Your task to perform on an android device: change your default location settings in chrome Image 0: 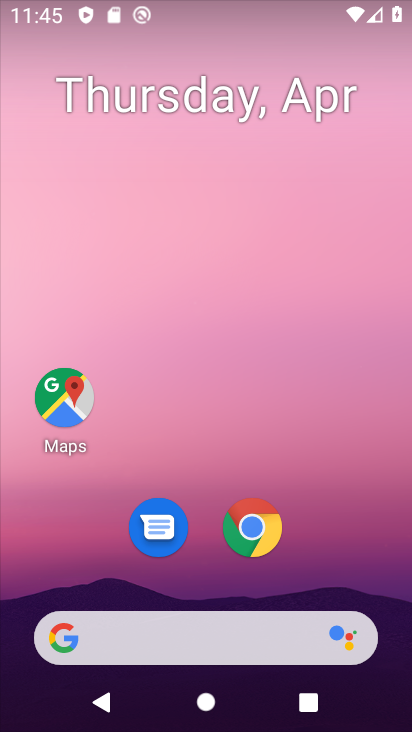
Step 0: click (260, 536)
Your task to perform on an android device: change your default location settings in chrome Image 1: 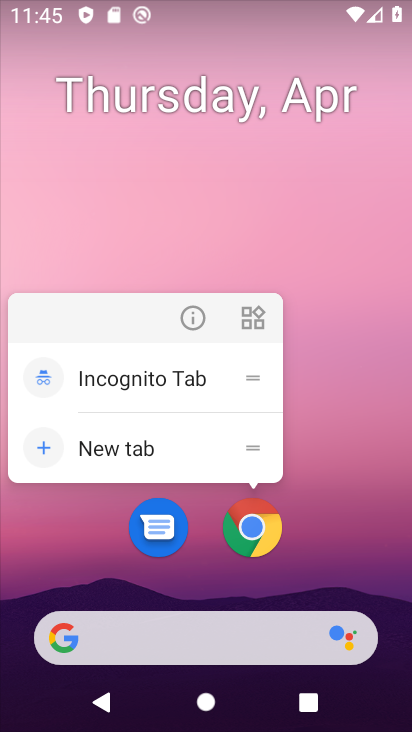
Step 1: click (260, 536)
Your task to perform on an android device: change your default location settings in chrome Image 2: 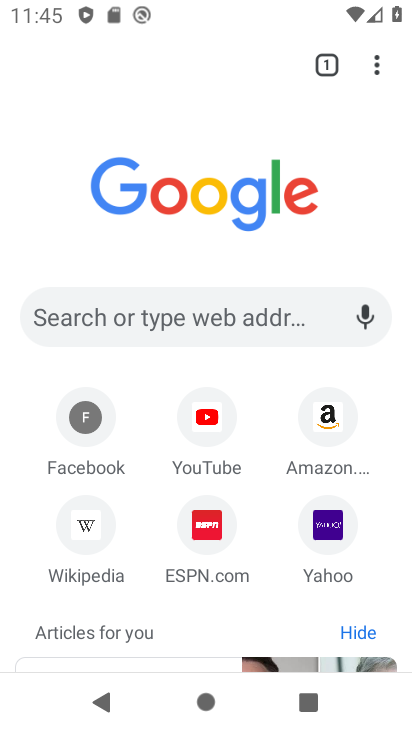
Step 2: click (385, 69)
Your task to perform on an android device: change your default location settings in chrome Image 3: 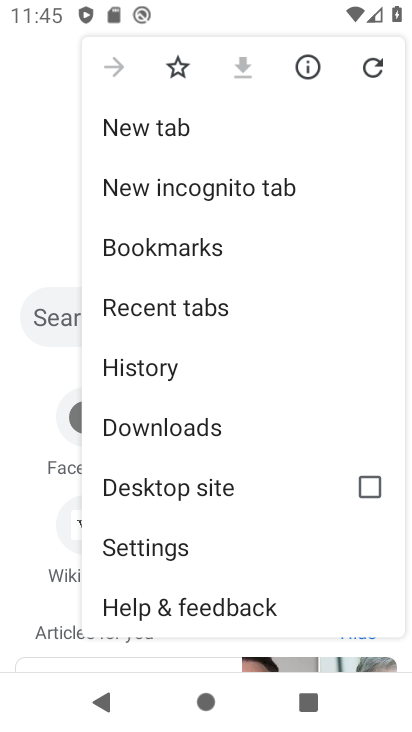
Step 3: click (194, 540)
Your task to perform on an android device: change your default location settings in chrome Image 4: 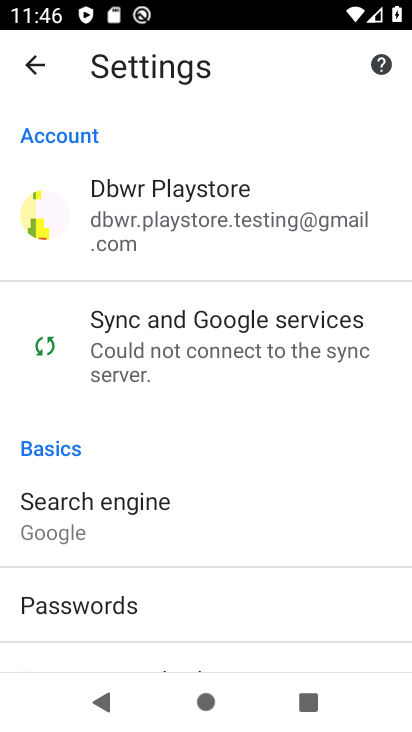
Step 4: drag from (240, 376) to (262, 190)
Your task to perform on an android device: change your default location settings in chrome Image 5: 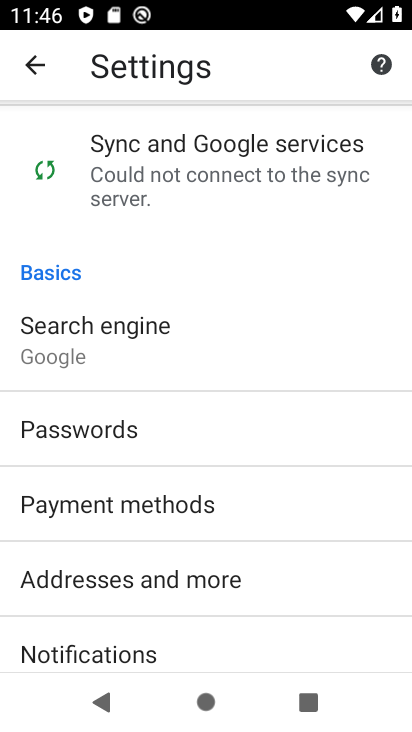
Step 5: drag from (233, 482) to (260, 308)
Your task to perform on an android device: change your default location settings in chrome Image 6: 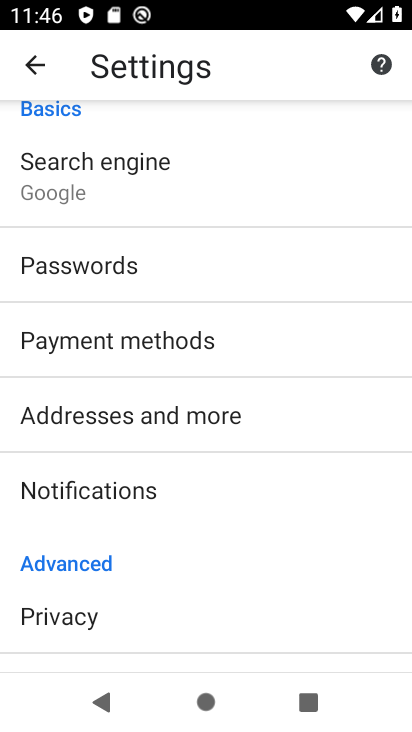
Step 6: drag from (199, 616) to (237, 289)
Your task to perform on an android device: change your default location settings in chrome Image 7: 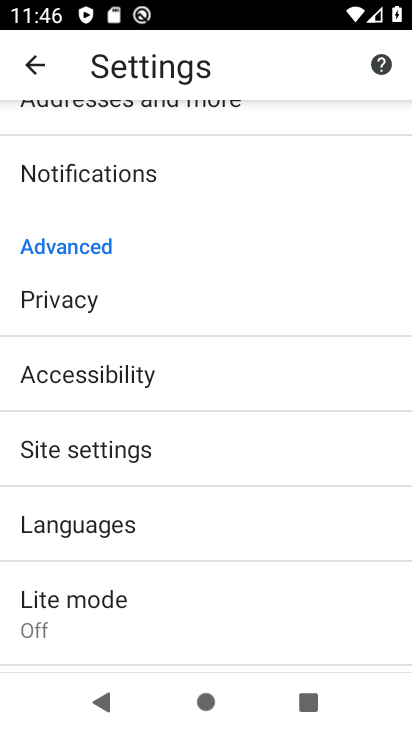
Step 7: drag from (226, 516) to (241, 325)
Your task to perform on an android device: change your default location settings in chrome Image 8: 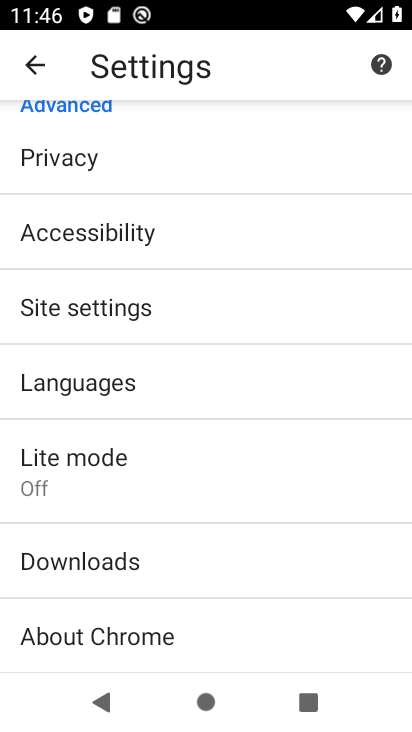
Step 8: click (101, 318)
Your task to perform on an android device: change your default location settings in chrome Image 9: 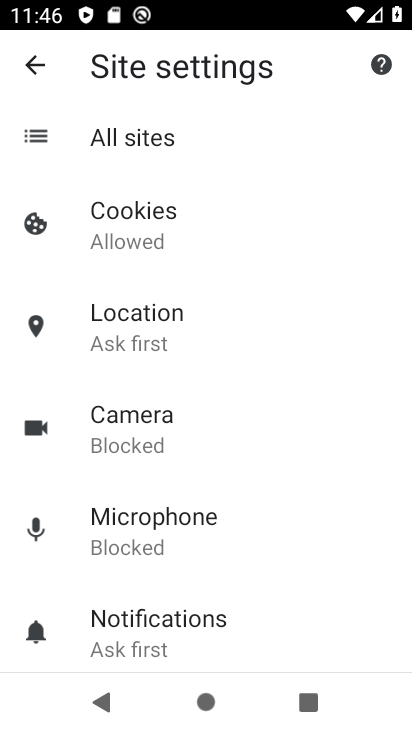
Step 9: click (101, 318)
Your task to perform on an android device: change your default location settings in chrome Image 10: 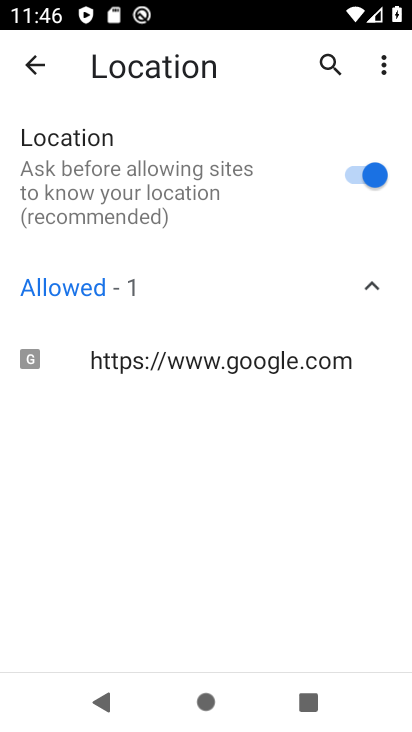
Step 10: click (278, 364)
Your task to perform on an android device: change your default location settings in chrome Image 11: 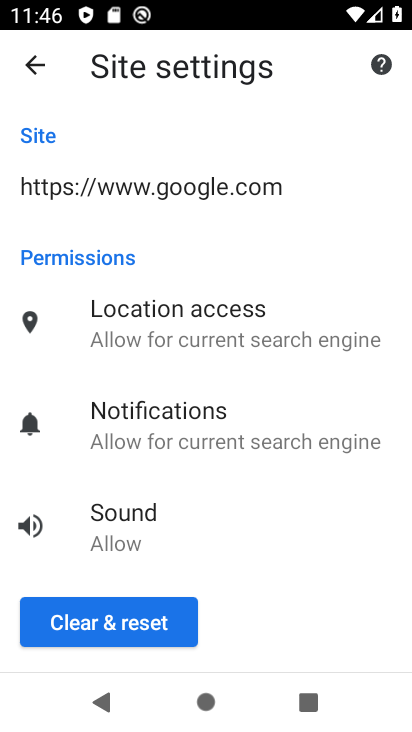
Step 11: click (32, 61)
Your task to perform on an android device: change your default location settings in chrome Image 12: 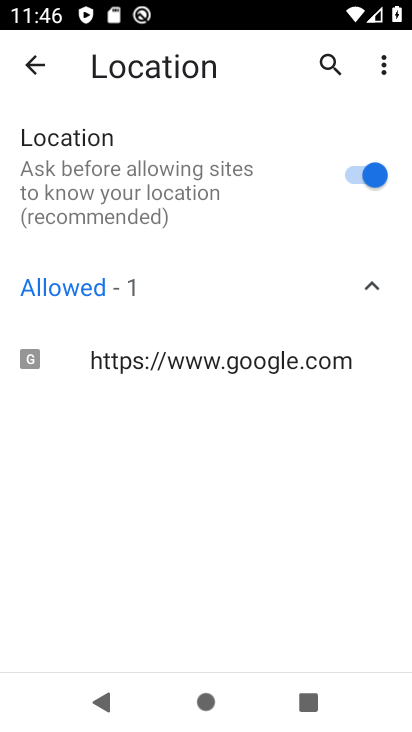
Step 12: click (351, 170)
Your task to perform on an android device: change your default location settings in chrome Image 13: 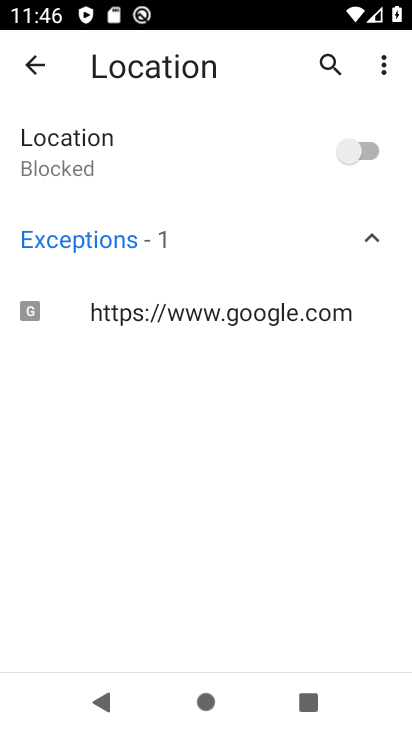
Step 13: task complete